Your task to perform on an android device: delete location history Image 0: 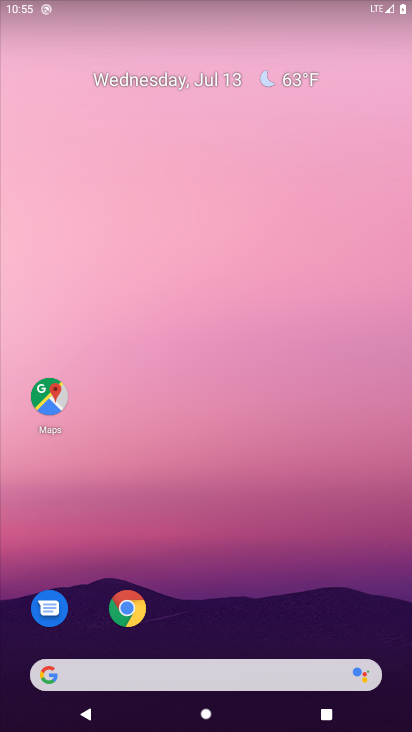
Step 0: drag from (277, 600) to (400, 71)
Your task to perform on an android device: delete location history Image 1: 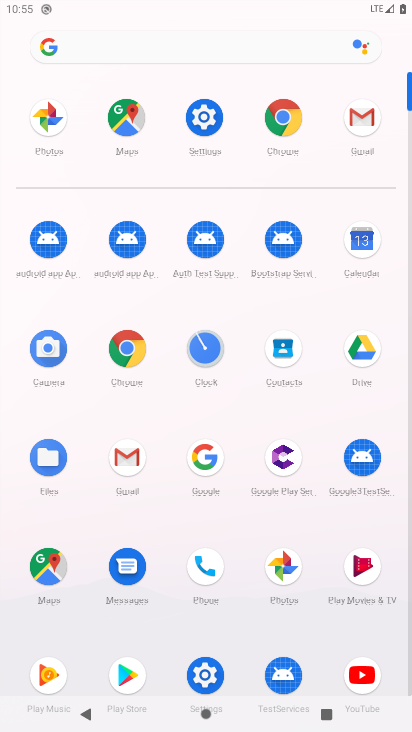
Step 1: click (39, 561)
Your task to perform on an android device: delete location history Image 2: 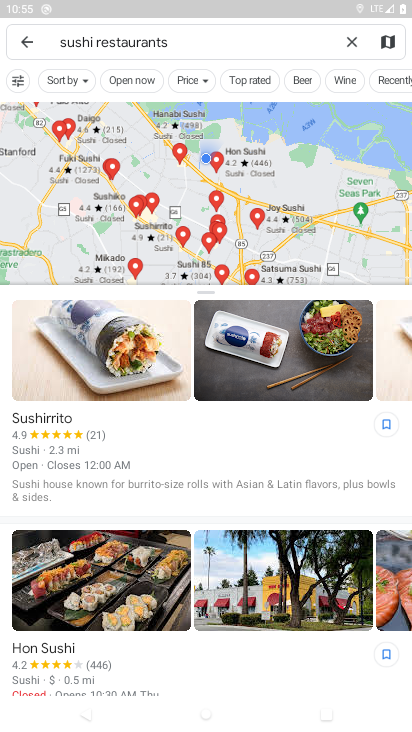
Step 2: click (346, 42)
Your task to perform on an android device: delete location history Image 3: 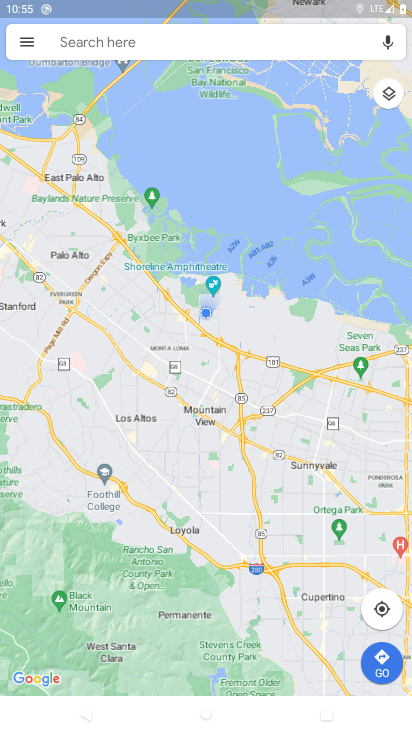
Step 3: click (27, 47)
Your task to perform on an android device: delete location history Image 4: 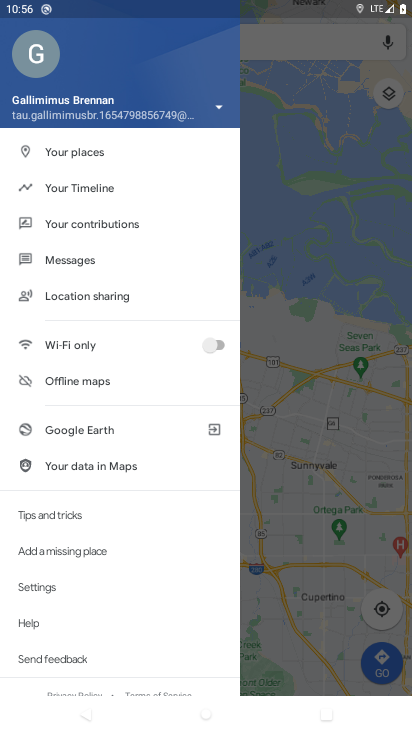
Step 4: click (86, 193)
Your task to perform on an android device: delete location history Image 5: 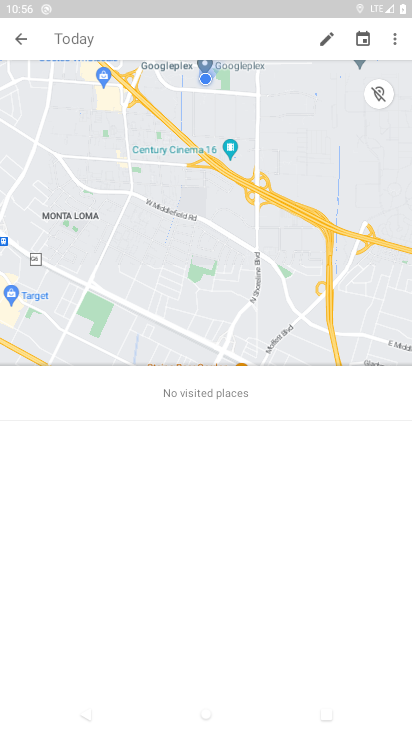
Step 5: click (398, 40)
Your task to perform on an android device: delete location history Image 6: 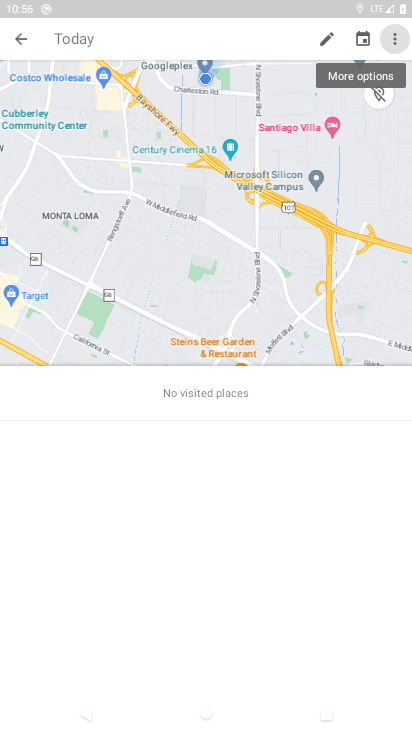
Step 6: click (398, 40)
Your task to perform on an android device: delete location history Image 7: 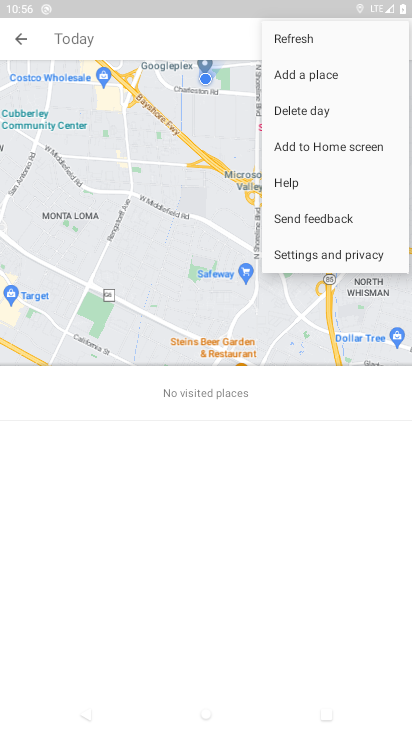
Step 7: click (308, 255)
Your task to perform on an android device: delete location history Image 8: 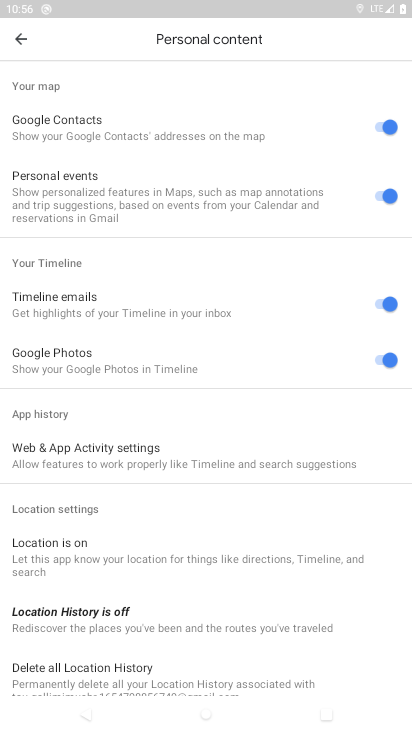
Step 8: drag from (158, 631) to (265, 255)
Your task to perform on an android device: delete location history Image 9: 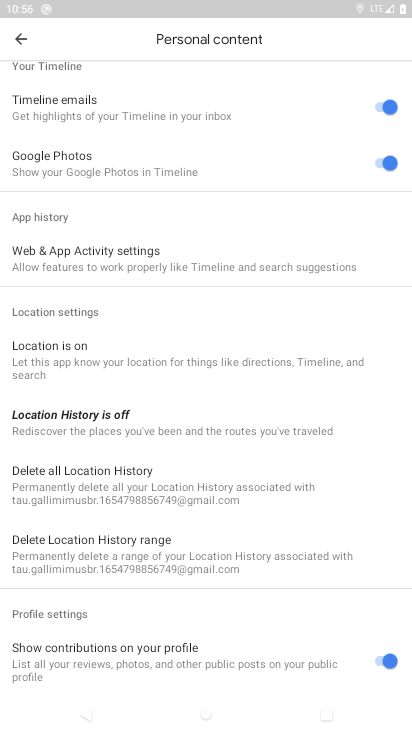
Step 9: click (117, 469)
Your task to perform on an android device: delete location history Image 10: 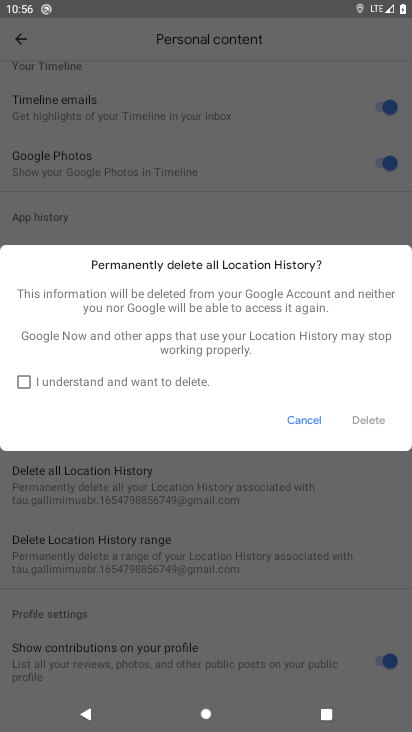
Step 10: click (24, 376)
Your task to perform on an android device: delete location history Image 11: 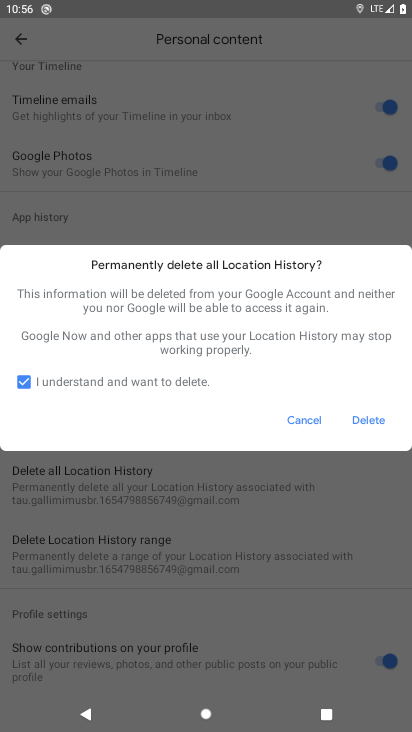
Step 11: click (365, 418)
Your task to perform on an android device: delete location history Image 12: 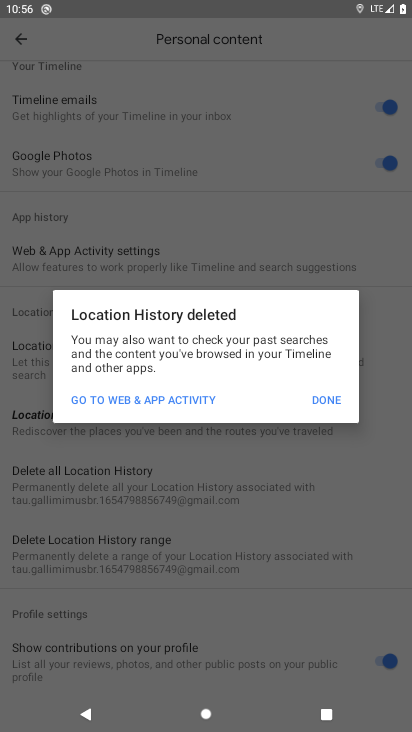
Step 12: click (331, 397)
Your task to perform on an android device: delete location history Image 13: 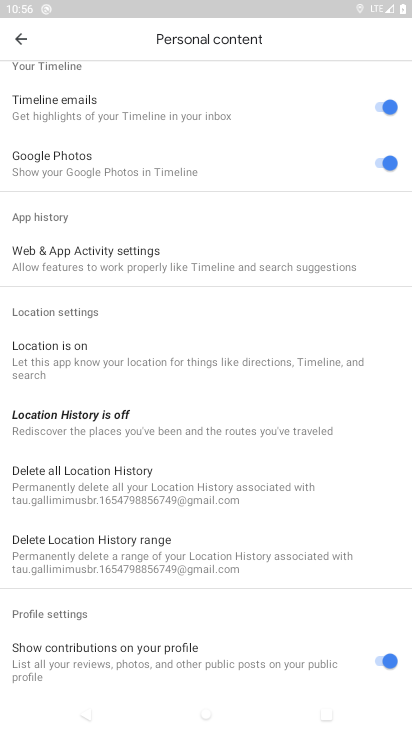
Step 13: task complete